Your task to perform on an android device: Go to Google Image 0: 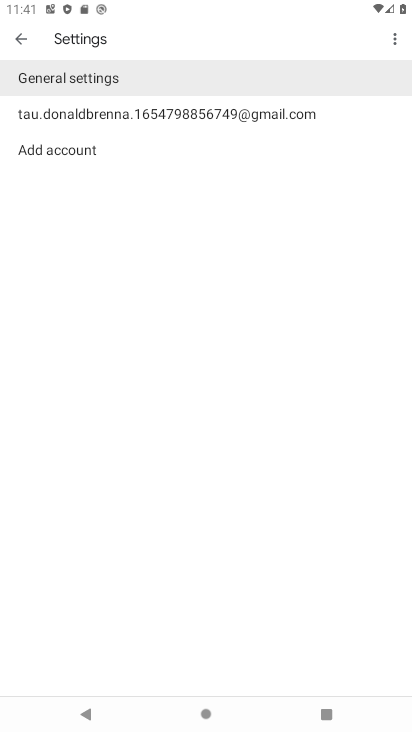
Step 0: press home button
Your task to perform on an android device: Go to Google Image 1: 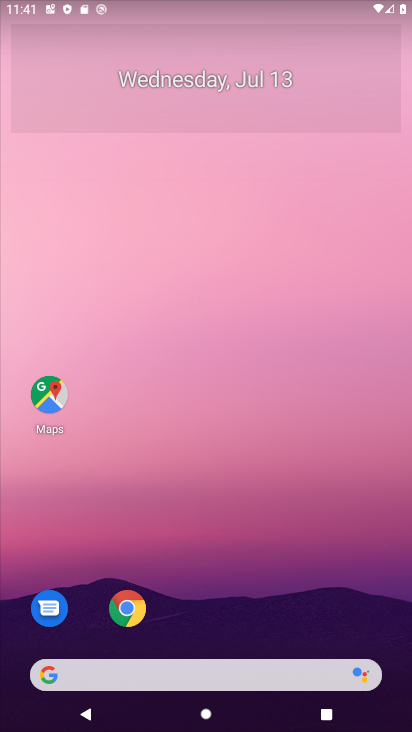
Step 1: drag from (144, 713) to (321, 108)
Your task to perform on an android device: Go to Google Image 2: 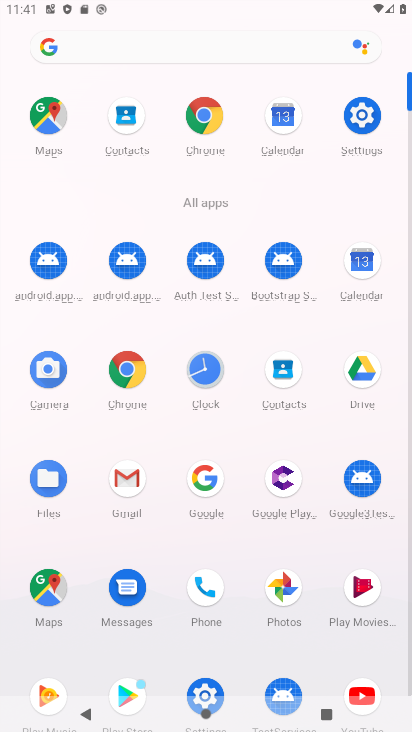
Step 2: click (207, 481)
Your task to perform on an android device: Go to Google Image 3: 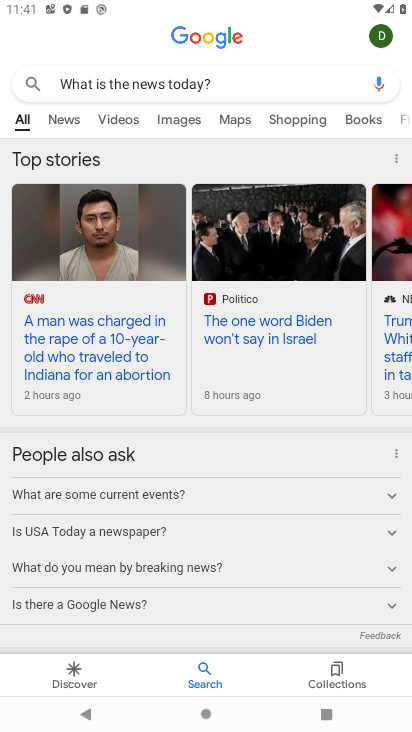
Step 3: task complete